Your task to perform on an android device: toggle notifications settings in the gmail app Image 0: 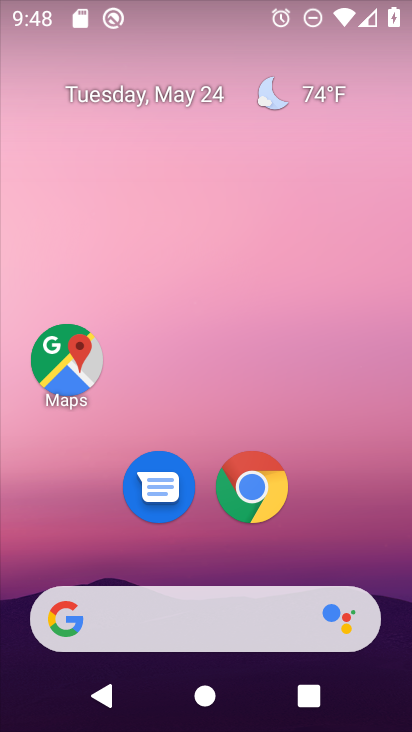
Step 0: drag from (405, 592) to (391, 18)
Your task to perform on an android device: toggle notifications settings in the gmail app Image 1: 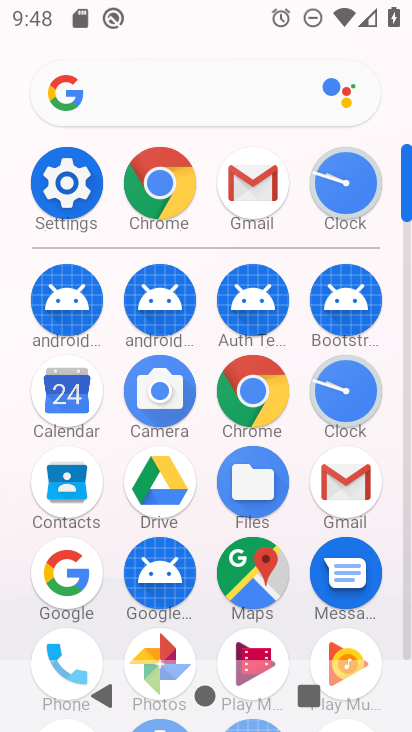
Step 1: click (262, 173)
Your task to perform on an android device: toggle notifications settings in the gmail app Image 2: 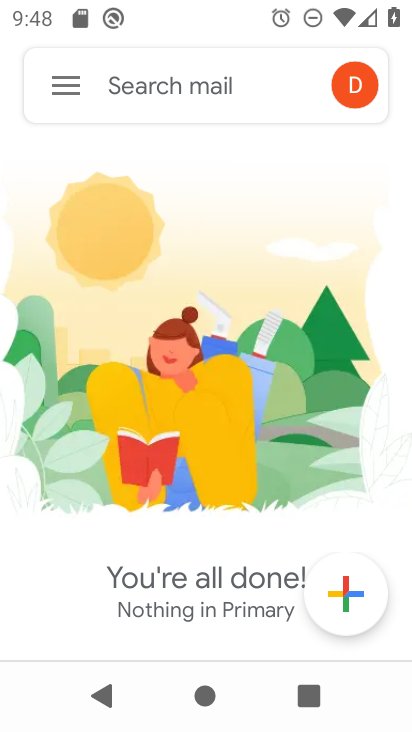
Step 2: click (57, 94)
Your task to perform on an android device: toggle notifications settings in the gmail app Image 3: 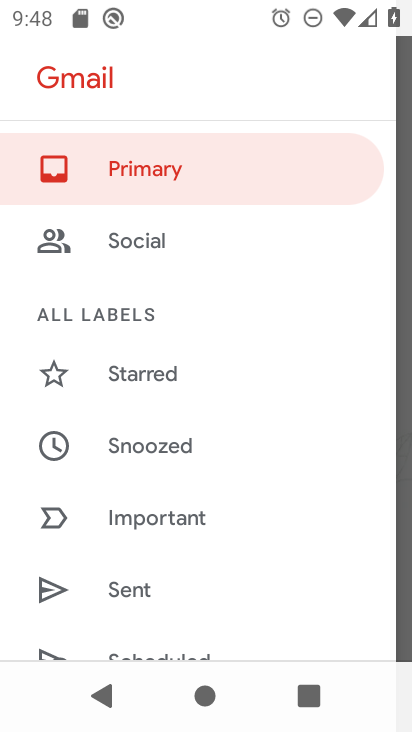
Step 3: drag from (239, 500) to (191, 83)
Your task to perform on an android device: toggle notifications settings in the gmail app Image 4: 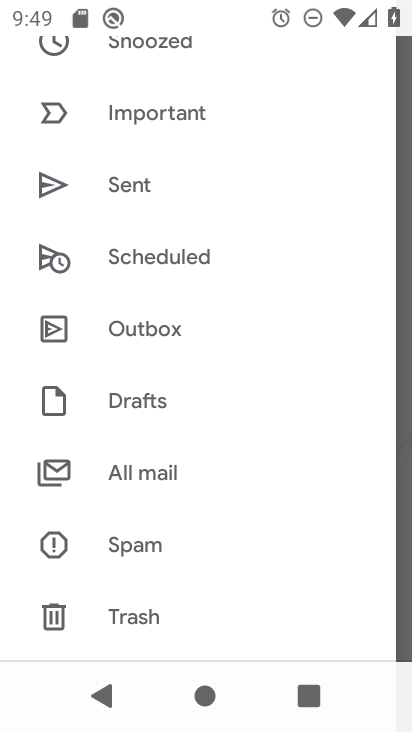
Step 4: drag from (238, 493) to (198, 107)
Your task to perform on an android device: toggle notifications settings in the gmail app Image 5: 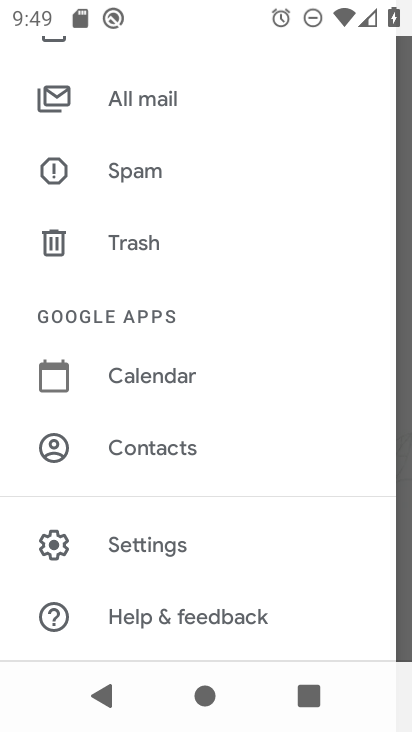
Step 5: click (166, 544)
Your task to perform on an android device: toggle notifications settings in the gmail app Image 6: 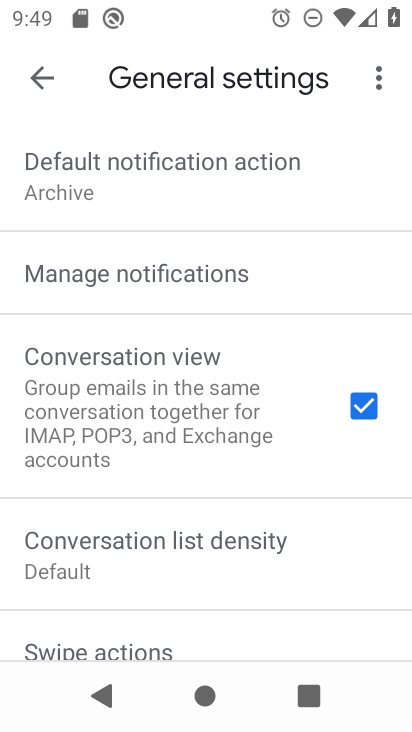
Step 6: click (177, 279)
Your task to perform on an android device: toggle notifications settings in the gmail app Image 7: 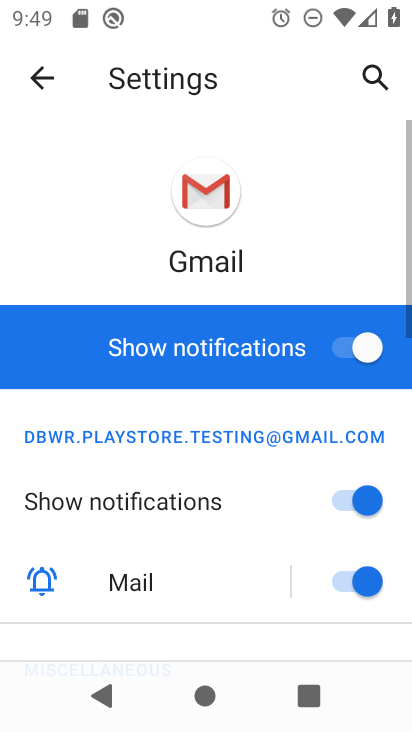
Step 7: click (374, 356)
Your task to perform on an android device: toggle notifications settings in the gmail app Image 8: 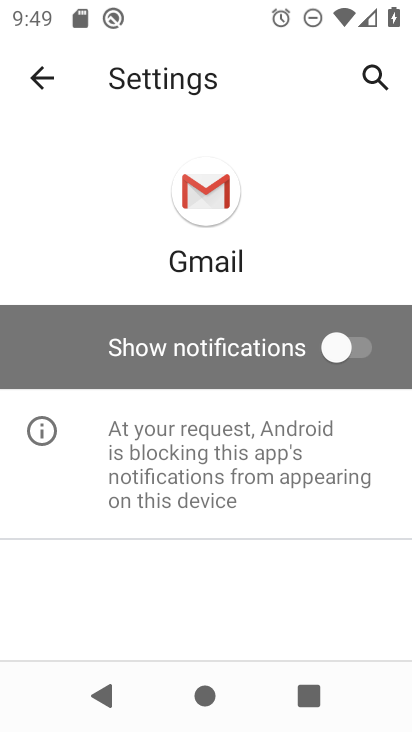
Step 8: task complete